Your task to perform on an android device: Open Amazon Image 0: 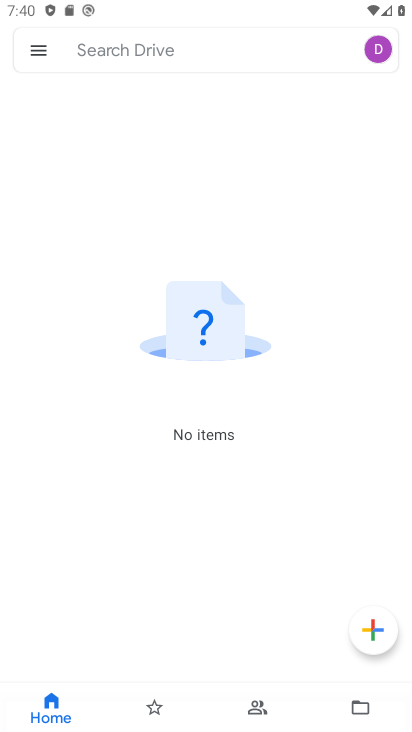
Step 0: press home button
Your task to perform on an android device: Open Amazon Image 1: 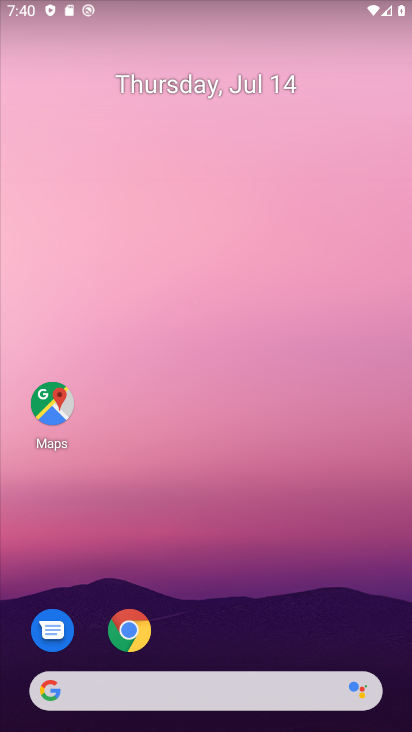
Step 1: drag from (241, 669) to (251, 140)
Your task to perform on an android device: Open Amazon Image 2: 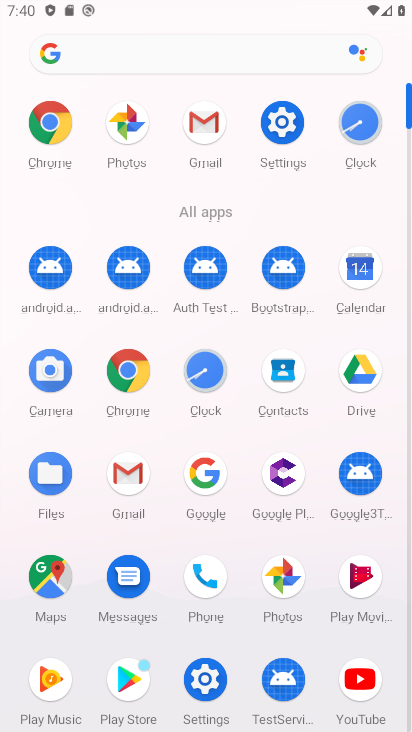
Step 2: click (51, 118)
Your task to perform on an android device: Open Amazon Image 3: 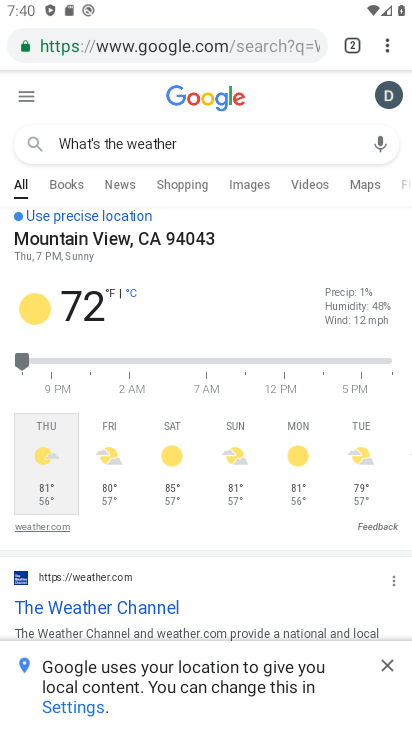
Step 3: click (390, 33)
Your task to perform on an android device: Open Amazon Image 4: 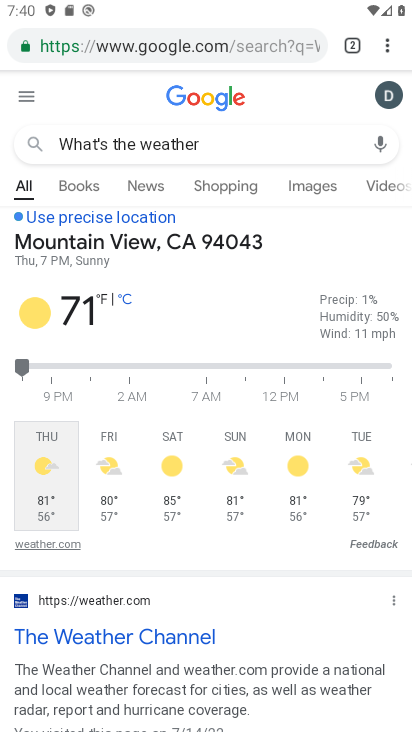
Step 4: click (396, 48)
Your task to perform on an android device: Open Amazon Image 5: 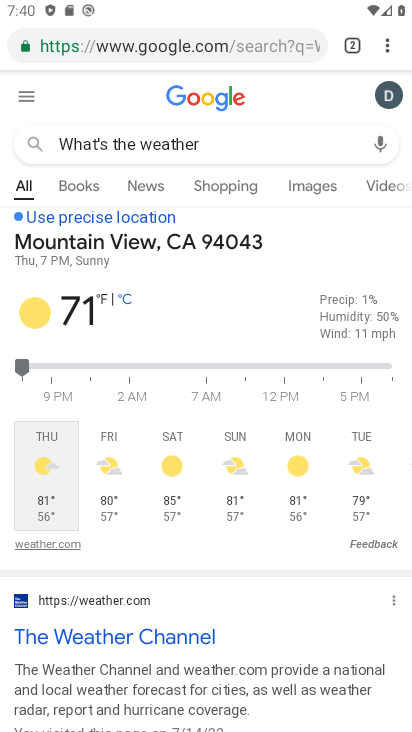
Step 5: click (394, 42)
Your task to perform on an android device: Open Amazon Image 6: 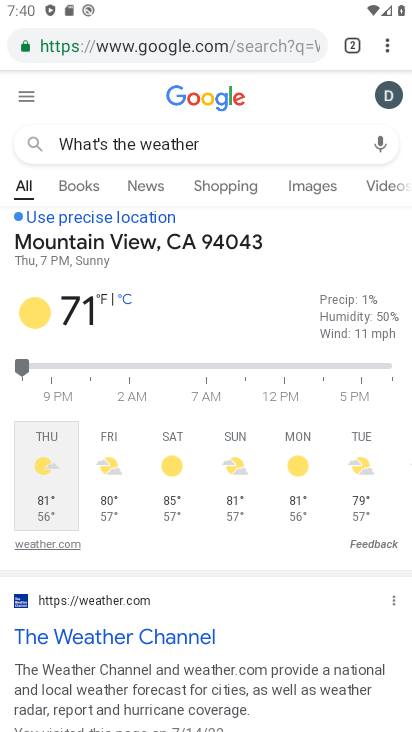
Step 6: click (394, 42)
Your task to perform on an android device: Open Amazon Image 7: 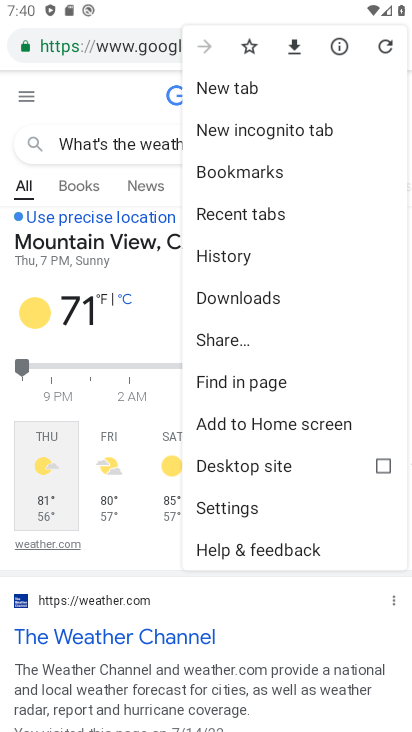
Step 7: click (198, 86)
Your task to perform on an android device: Open Amazon Image 8: 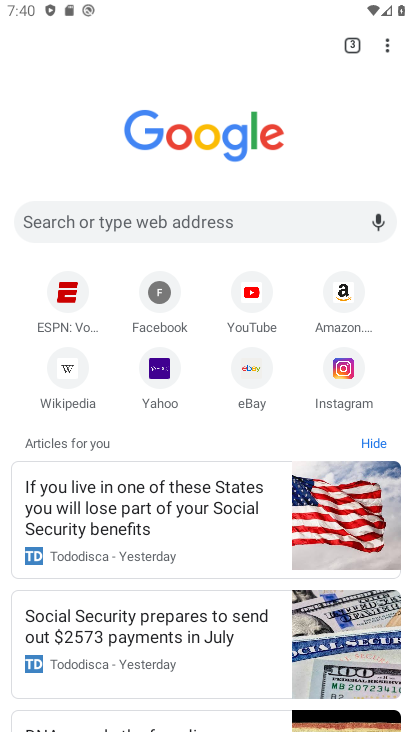
Step 8: click (341, 278)
Your task to perform on an android device: Open Amazon Image 9: 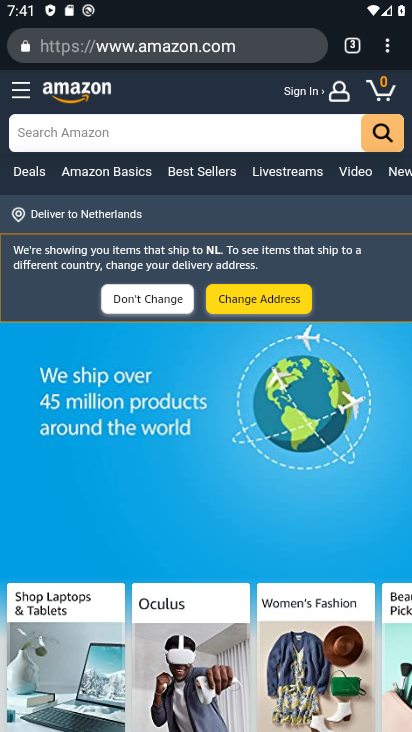
Step 9: task complete